Your task to perform on an android device: Search for custom wallets on etsy. Image 0: 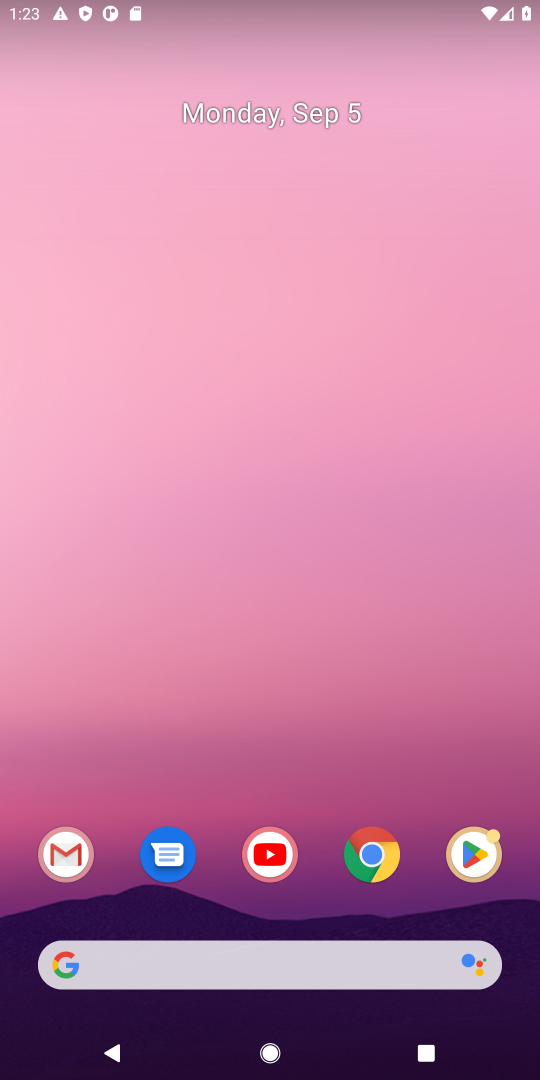
Step 0: press home button
Your task to perform on an android device: Search for custom wallets on etsy. Image 1: 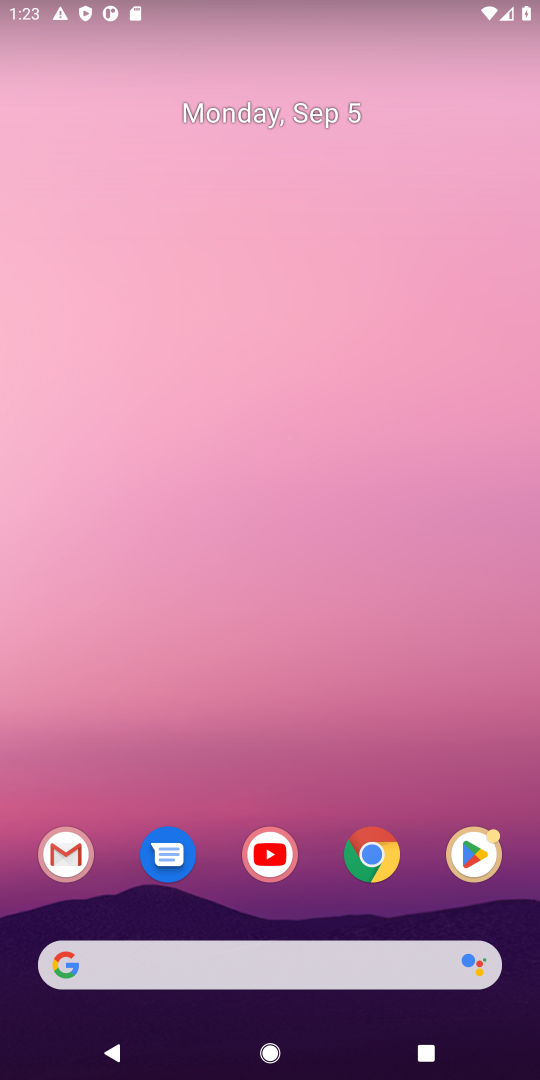
Step 1: click (360, 962)
Your task to perform on an android device: Search for custom wallets on etsy. Image 2: 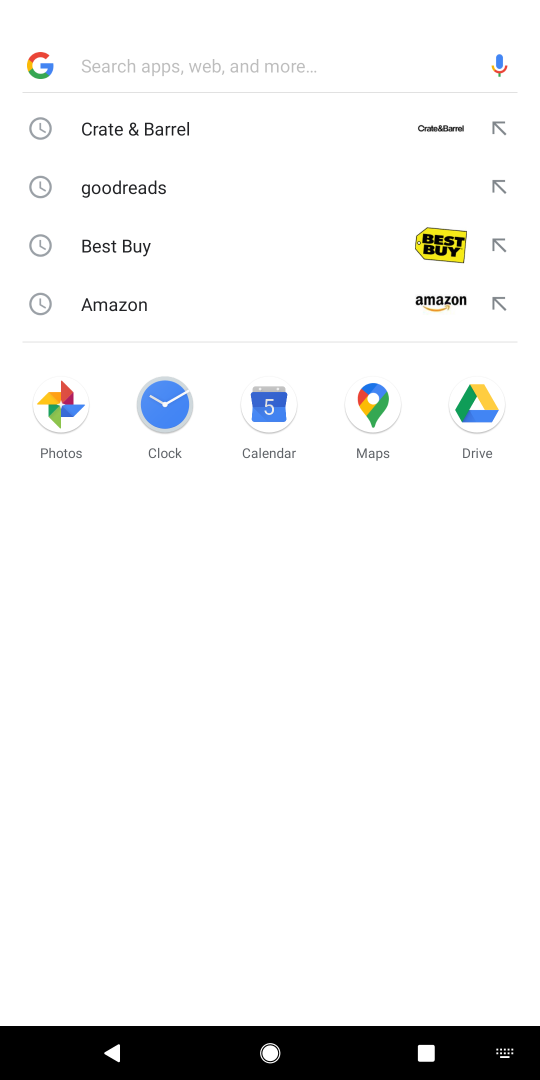
Step 2: press enter
Your task to perform on an android device: Search for custom wallets on etsy. Image 3: 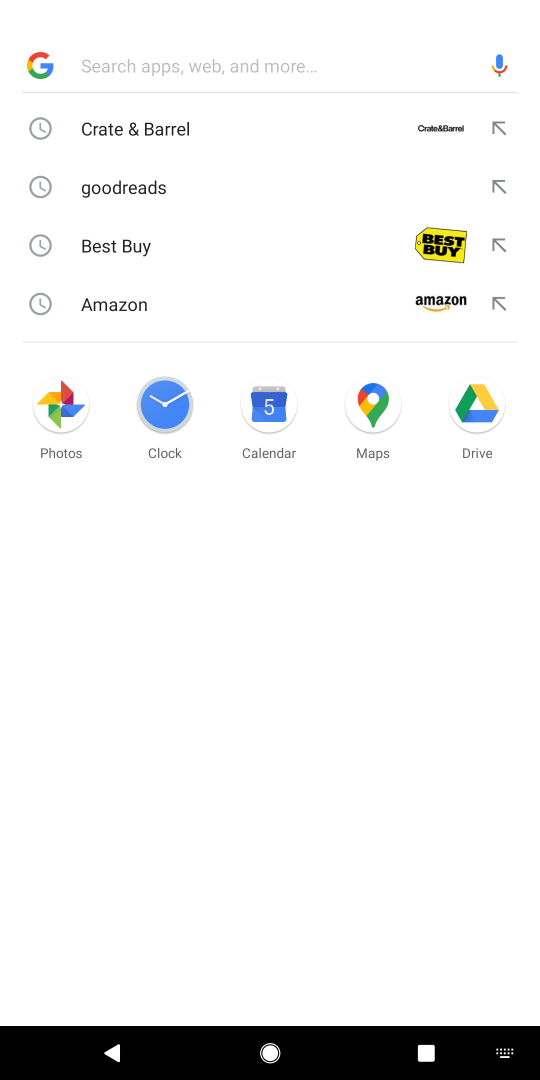
Step 3: type "etsy"
Your task to perform on an android device: Search for custom wallets on etsy. Image 4: 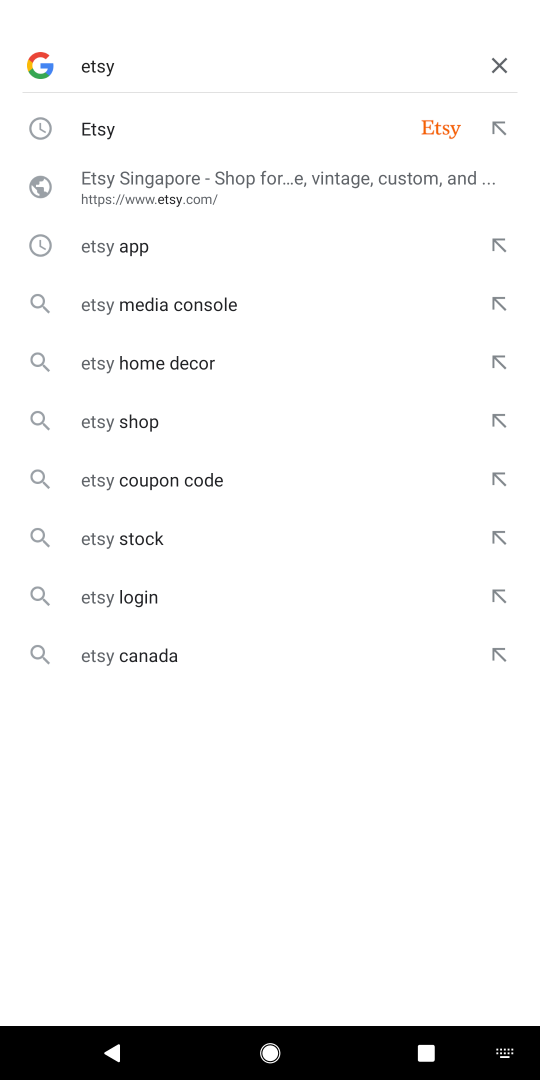
Step 4: click (197, 129)
Your task to perform on an android device: Search for custom wallets on etsy. Image 5: 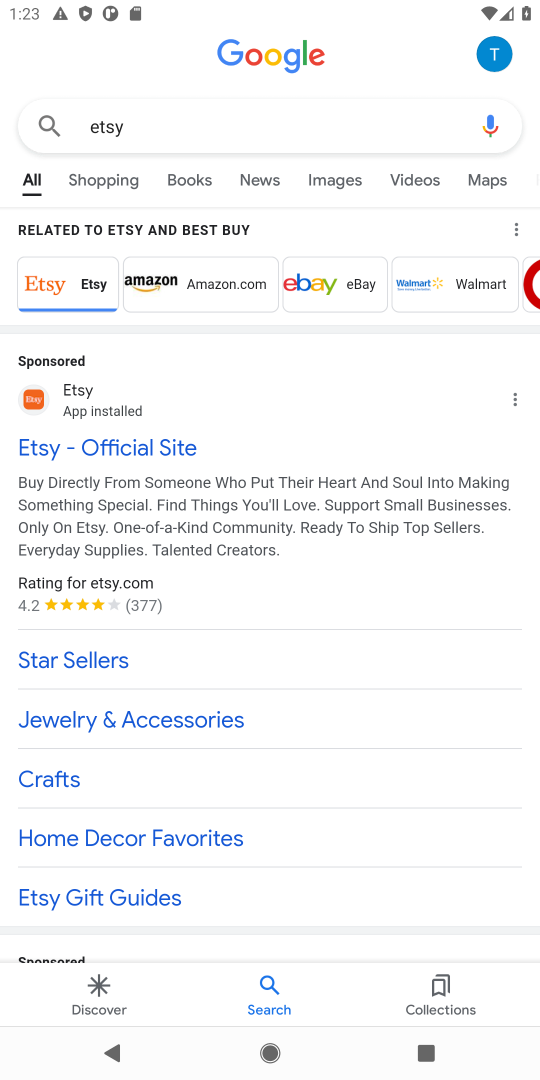
Step 5: click (134, 451)
Your task to perform on an android device: Search for custom wallets on etsy. Image 6: 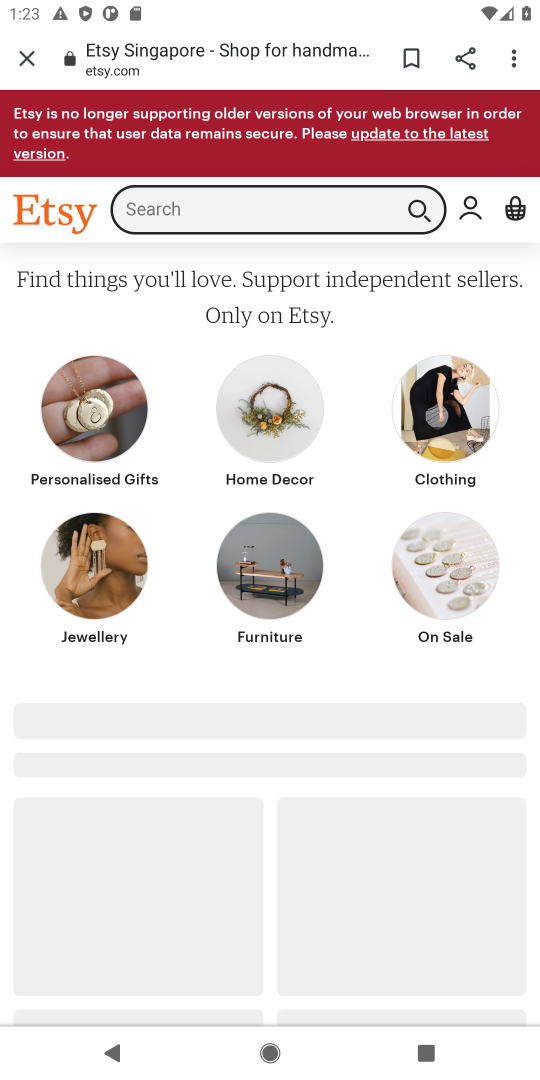
Step 6: click (272, 204)
Your task to perform on an android device: Search for custom wallets on etsy. Image 7: 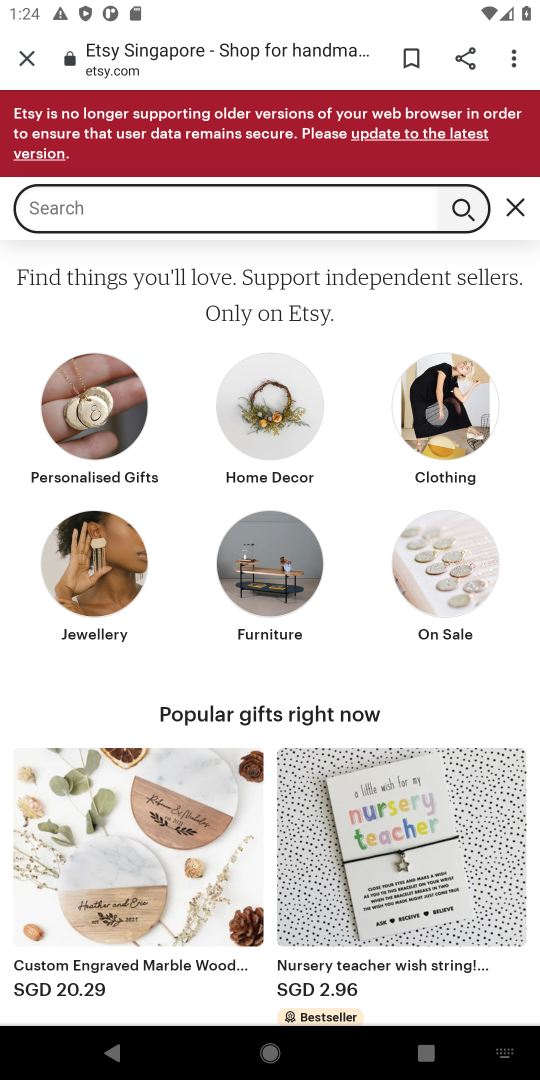
Step 7: type "custom wallets"
Your task to perform on an android device: Search for custom wallets on etsy. Image 8: 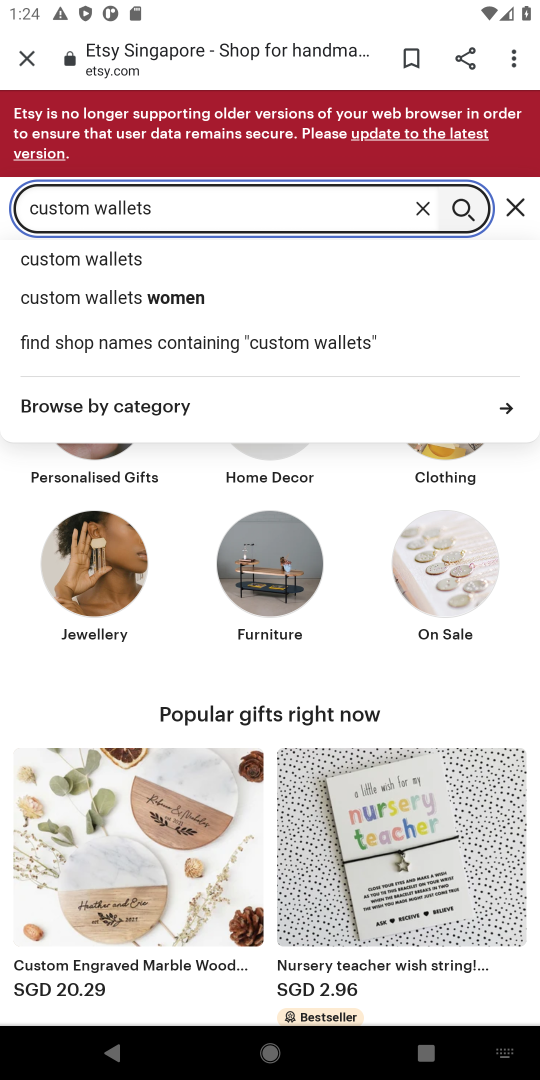
Step 8: click (133, 254)
Your task to perform on an android device: Search for custom wallets on etsy. Image 9: 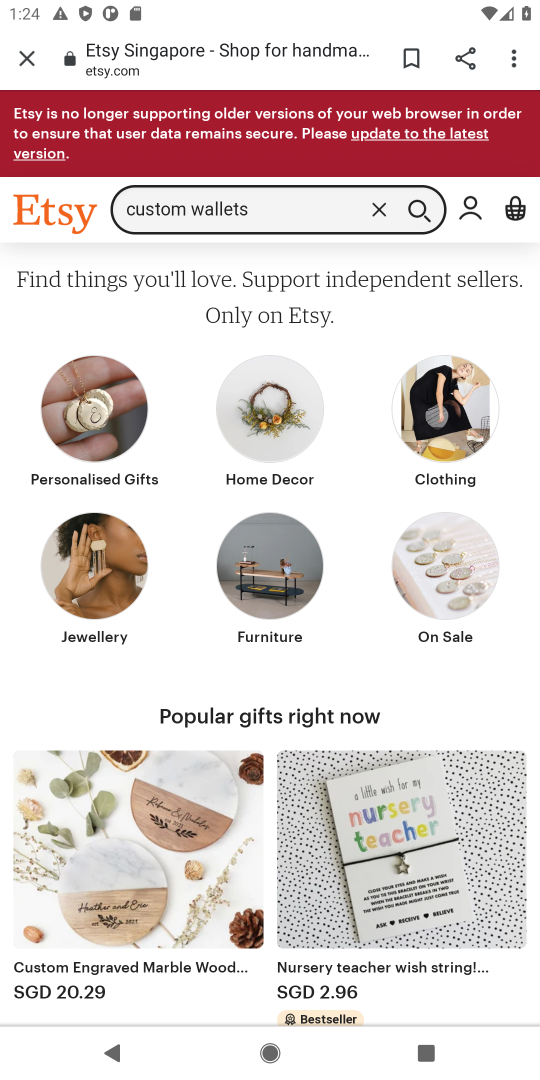
Step 9: click (422, 208)
Your task to perform on an android device: Search for custom wallets on etsy. Image 10: 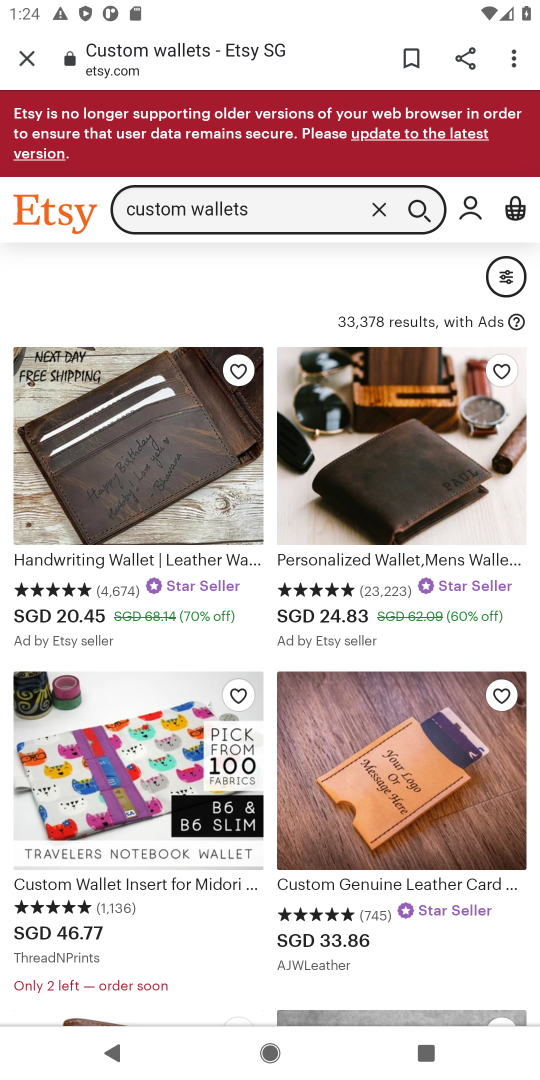
Step 10: task complete